Your task to perform on an android device: change notification settings in the gmail app Image 0: 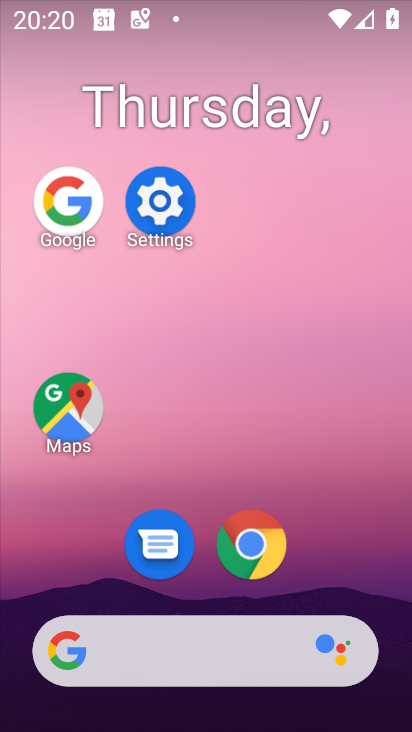
Step 0: drag from (249, 701) to (262, 200)
Your task to perform on an android device: change notification settings in the gmail app Image 1: 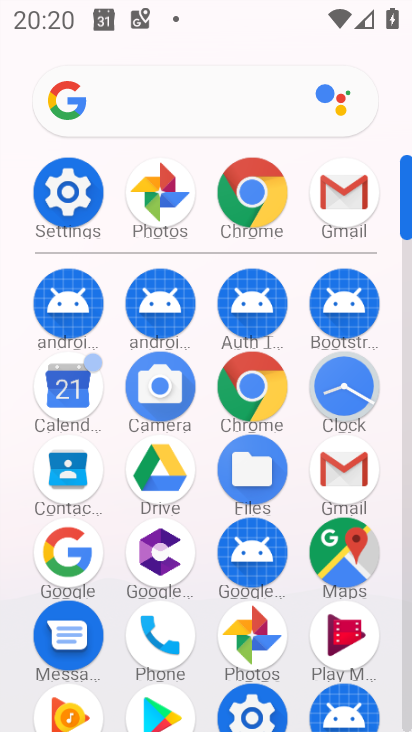
Step 1: click (336, 212)
Your task to perform on an android device: change notification settings in the gmail app Image 2: 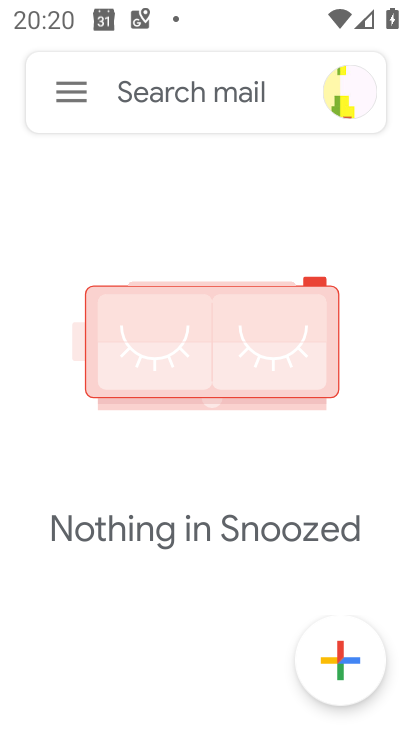
Step 2: click (71, 106)
Your task to perform on an android device: change notification settings in the gmail app Image 3: 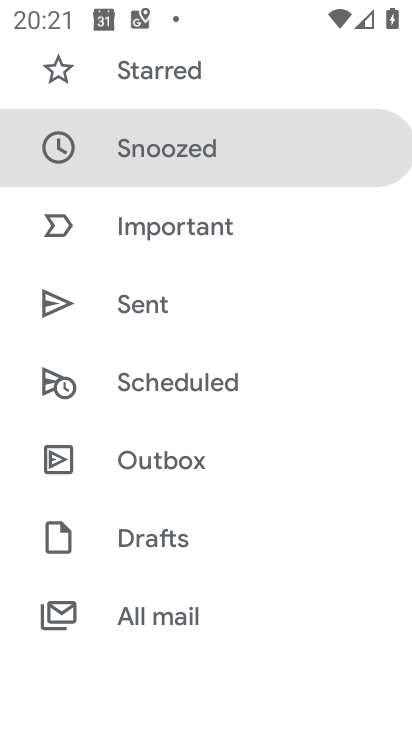
Step 3: drag from (162, 556) to (192, 178)
Your task to perform on an android device: change notification settings in the gmail app Image 4: 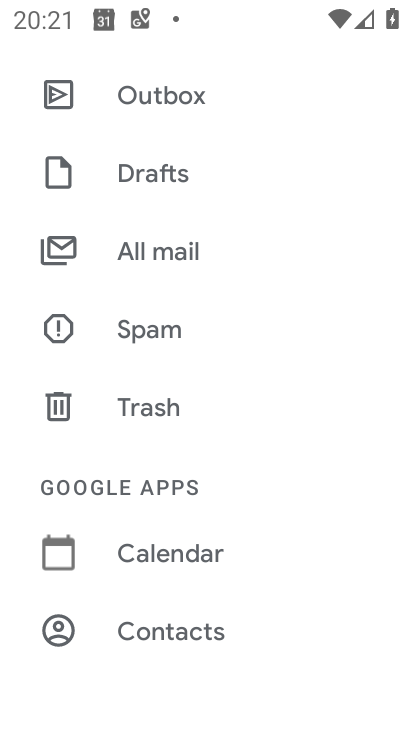
Step 4: drag from (142, 574) to (158, 416)
Your task to perform on an android device: change notification settings in the gmail app Image 5: 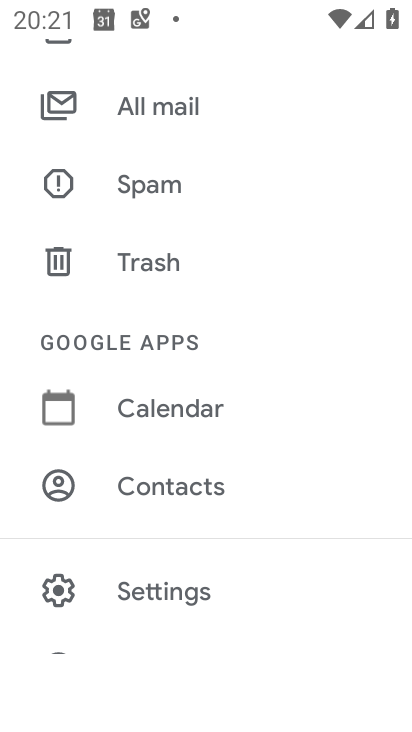
Step 5: click (162, 606)
Your task to perform on an android device: change notification settings in the gmail app Image 6: 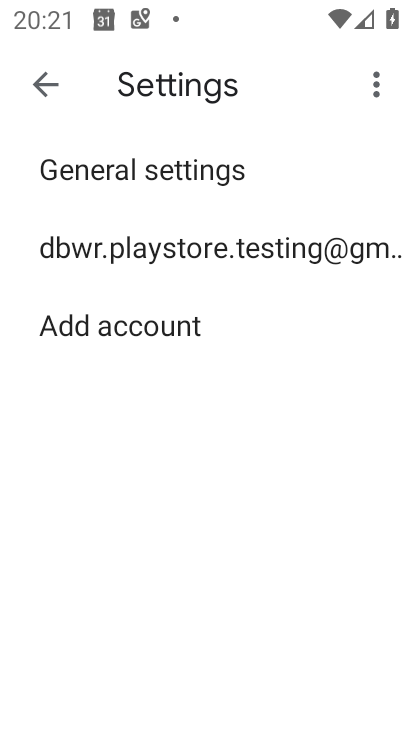
Step 6: click (198, 248)
Your task to perform on an android device: change notification settings in the gmail app Image 7: 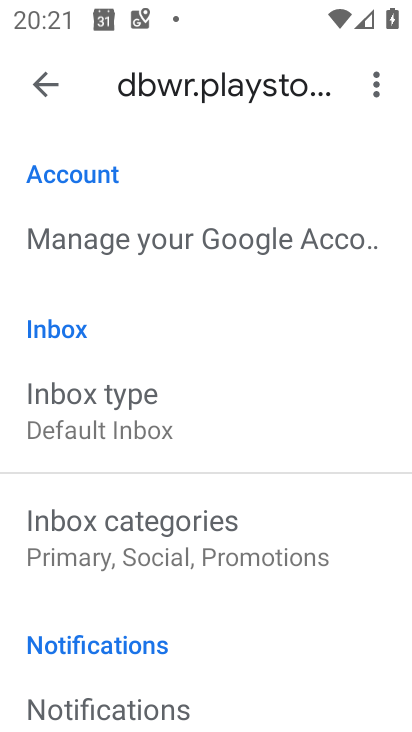
Step 7: click (118, 694)
Your task to perform on an android device: change notification settings in the gmail app Image 8: 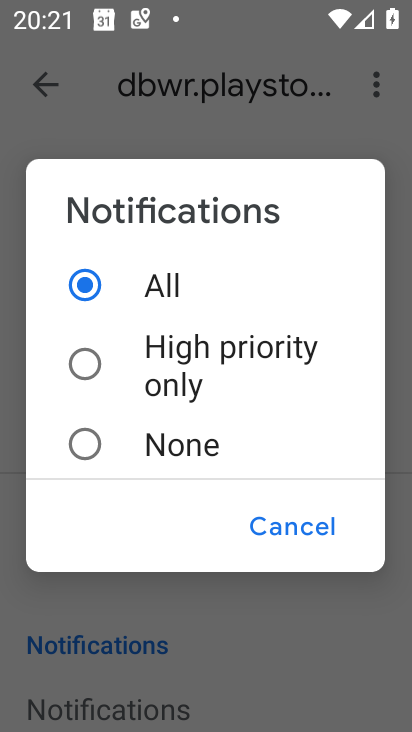
Step 8: click (179, 364)
Your task to perform on an android device: change notification settings in the gmail app Image 9: 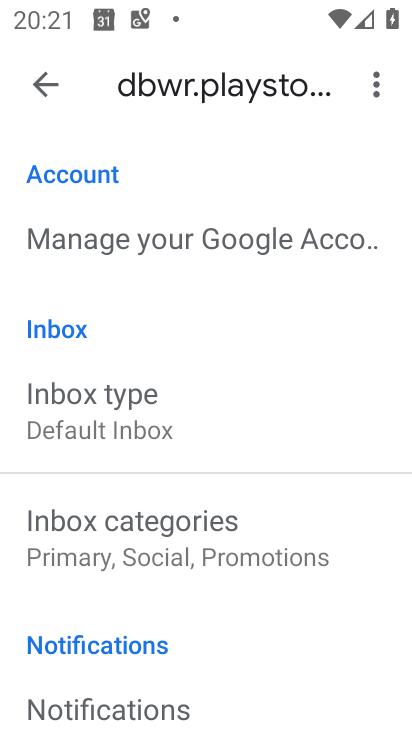
Step 9: task complete